Your task to perform on an android device: What's the weather going to be this weekend? Image 0: 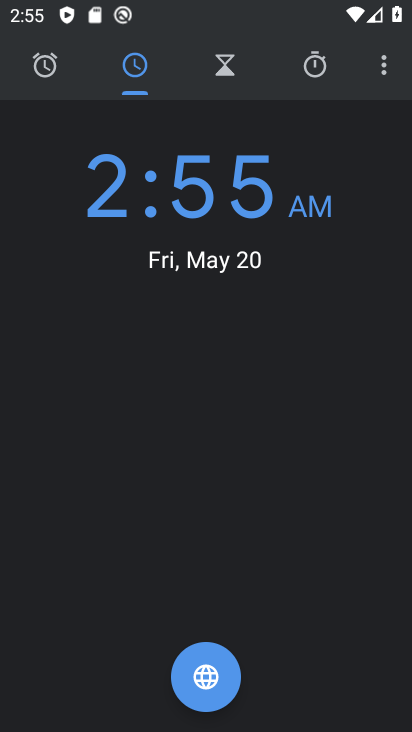
Step 0: press home button
Your task to perform on an android device: What's the weather going to be this weekend? Image 1: 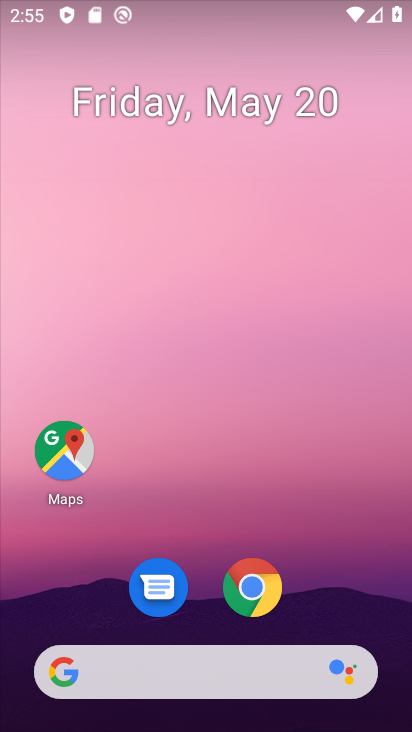
Step 1: click (215, 677)
Your task to perform on an android device: What's the weather going to be this weekend? Image 2: 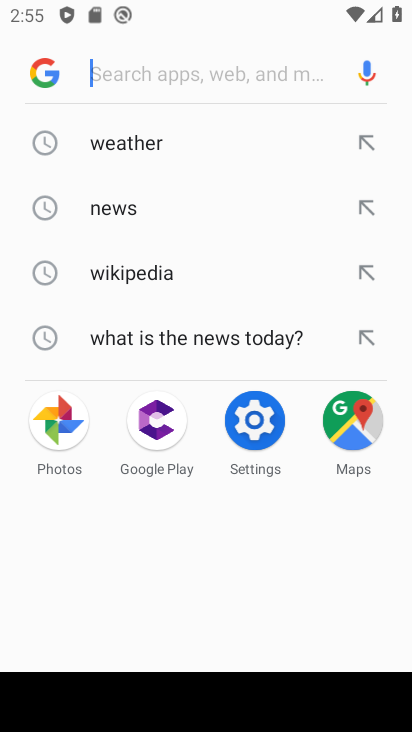
Step 2: type "What's the weather going to be this weekend?"
Your task to perform on an android device: What's the weather going to be this weekend? Image 3: 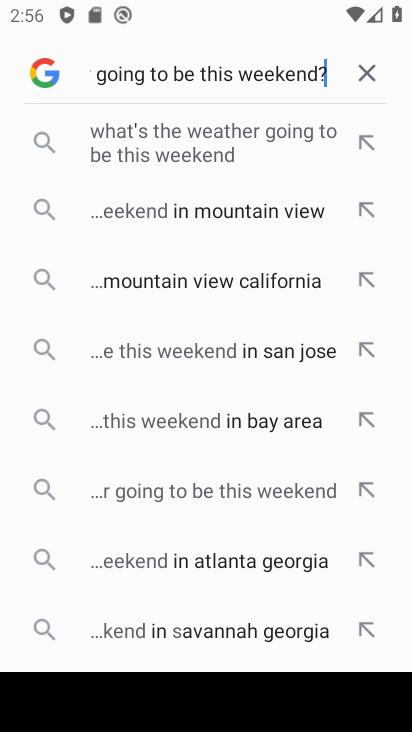
Step 3: click (188, 136)
Your task to perform on an android device: What's the weather going to be this weekend? Image 4: 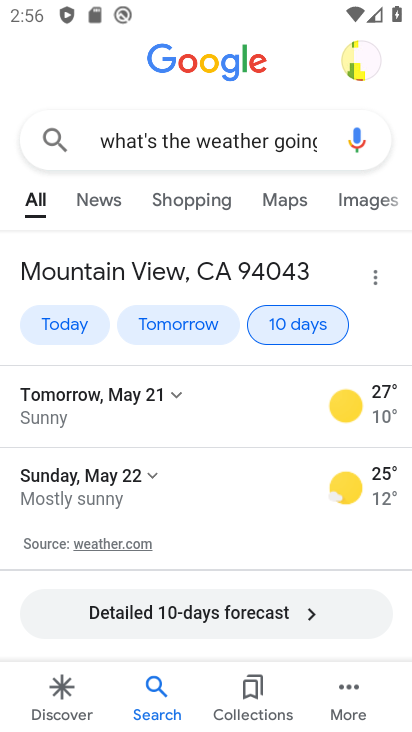
Step 4: task complete